Your task to perform on an android device: show emergency info Image 0: 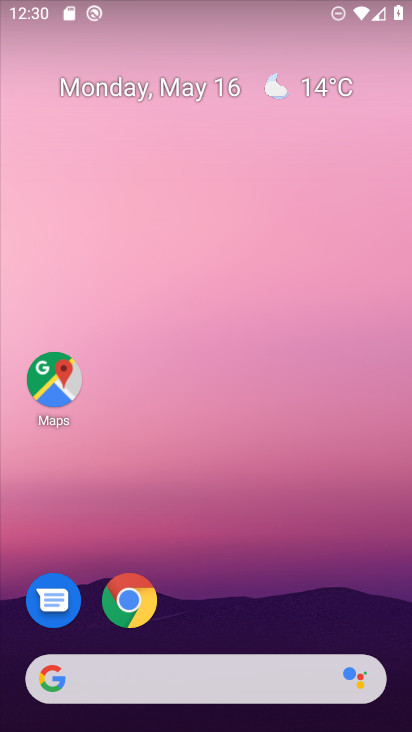
Step 0: drag from (228, 624) to (254, 177)
Your task to perform on an android device: show emergency info Image 1: 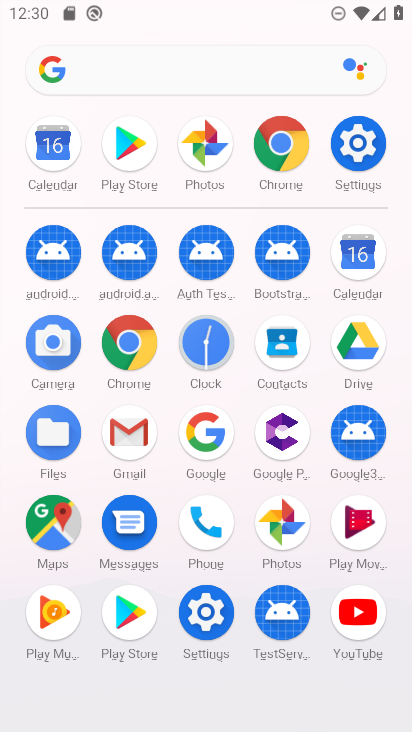
Step 1: click (363, 141)
Your task to perform on an android device: show emergency info Image 2: 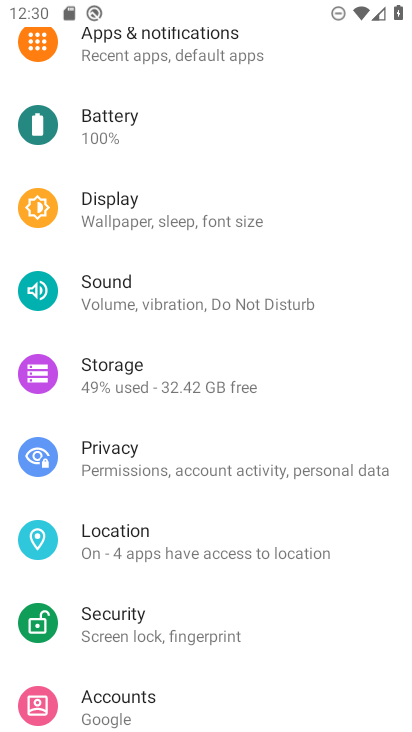
Step 2: drag from (201, 641) to (257, 305)
Your task to perform on an android device: show emergency info Image 3: 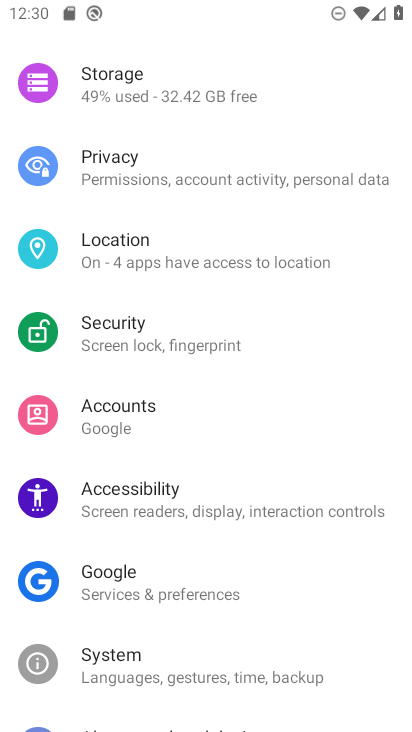
Step 3: drag from (231, 620) to (255, 106)
Your task to perform on an android device: show emergency info Image 4: 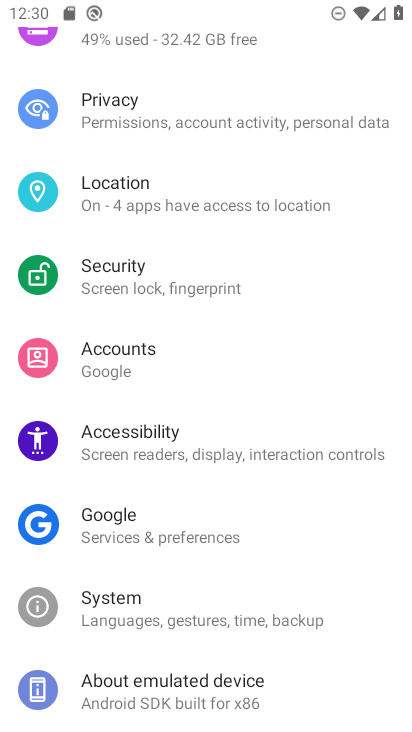
Step 4: click (231, 704)
Your task to perform on an android device: show emergency info Image 5: 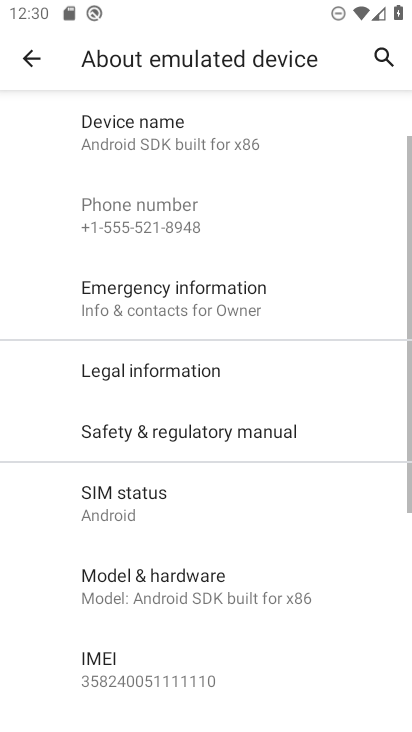
Step 5: click (275, 298)
Your task to perform on an android device: show emergency info Image 6: 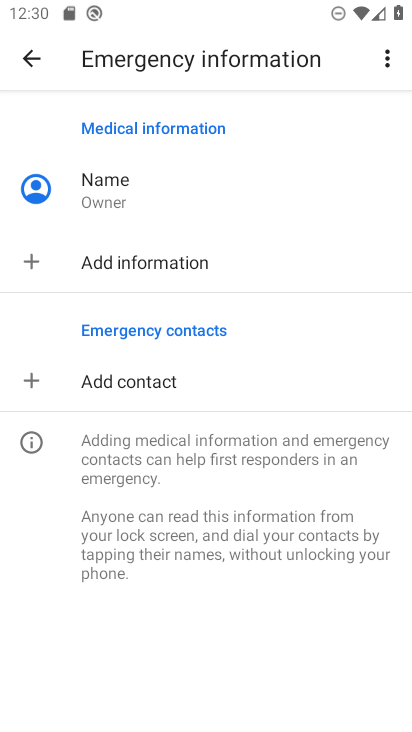
Step 6: task complete